Your task to perform on an android device: turn off priority inbox in the gmail app Image 0: 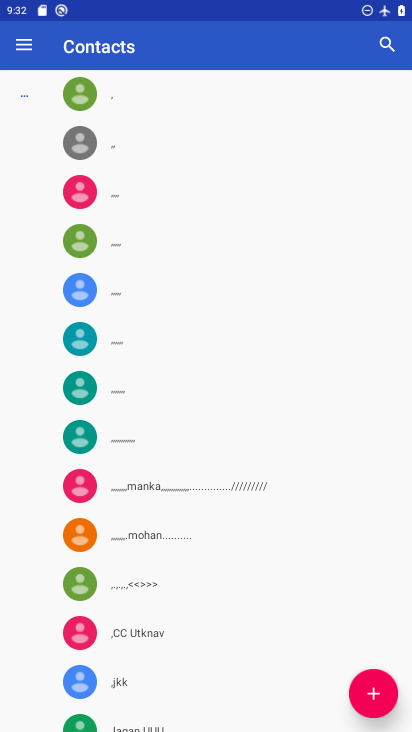
Step 0: press home button
Your task to perform on an android device: turn off priority inbox in the gmail app Image 1: 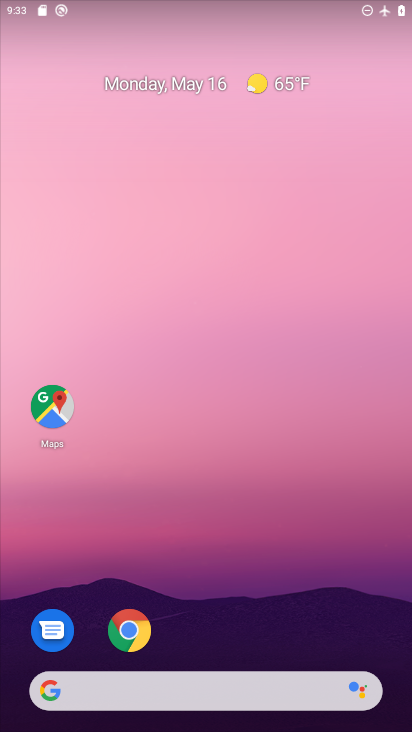
Step 1: drag from (239, 631) to (190, 190)
Your task to perform on an android device: turn off priority inbox in the gmail app Image 2: 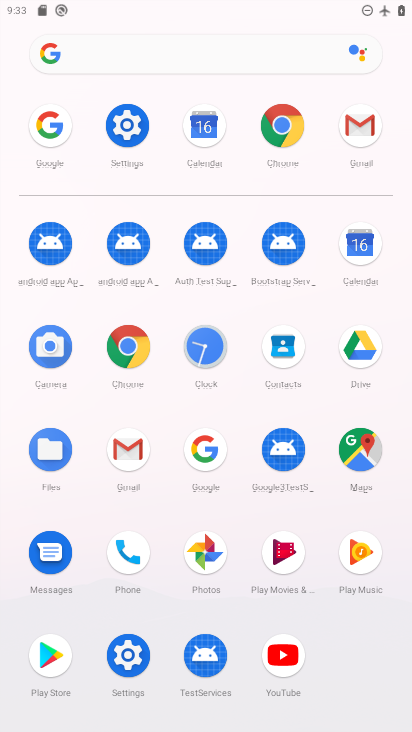
Step 2: click (359, 123)
Your task to perform on an android device: turn off priority inbox in the gmail app Image 3: 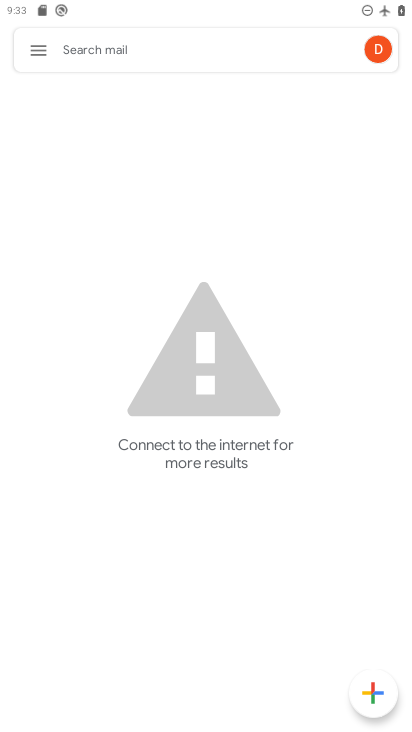
Step 3: click (37, 55)
Your task to perform on an android device: turn off priority inbox in the gmail app Image 4: 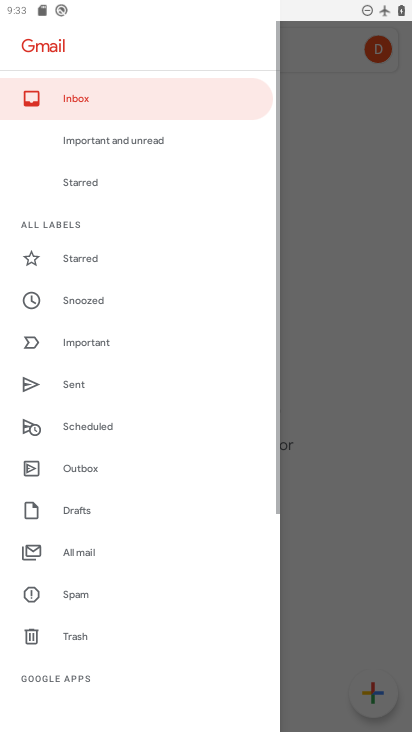
Step 4: drag from (118, 614) to (142, 346)
Your task to perform on an android device: turn off priority inbox in the gmail app Image 5: 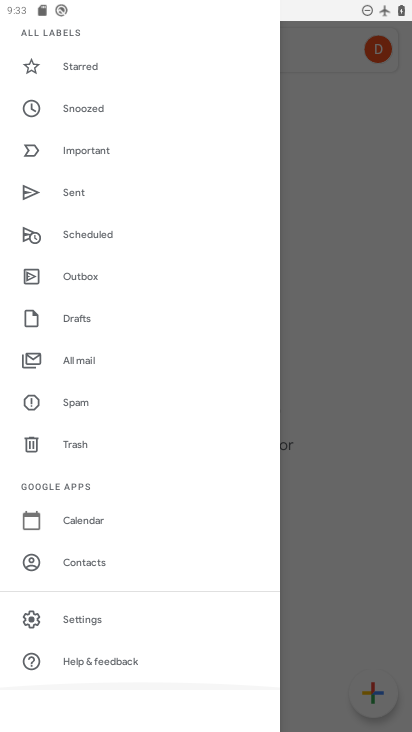
Step 5: click (108, 619)
Your task to perform on an android device: turn off priority inbox in the gmail app Image 6: 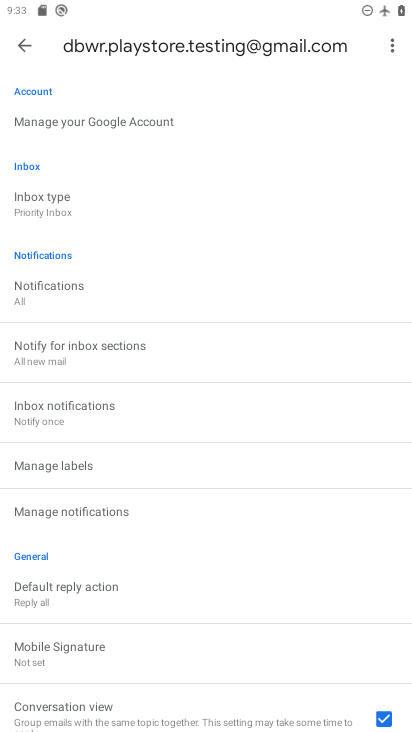
Step 6: click (68, 196)
Your task to perform on an android device: turn off priority inbox in the gmail app Image 7: 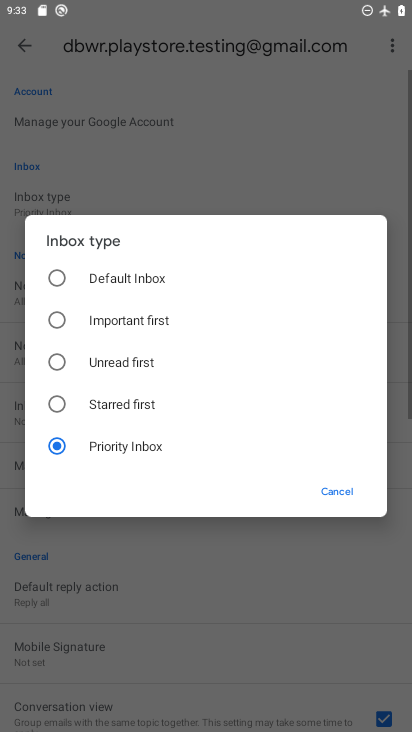
Step 7: click (62, 285)
Your task to perform on an android device: turn off priority inbox in the gmail app Image 8: 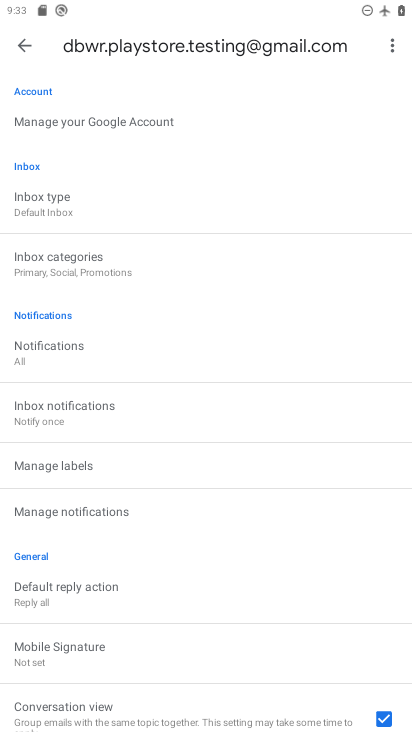
Step 8: task complete